Your task to perform on an android device: Open Wikipedia Image 0: 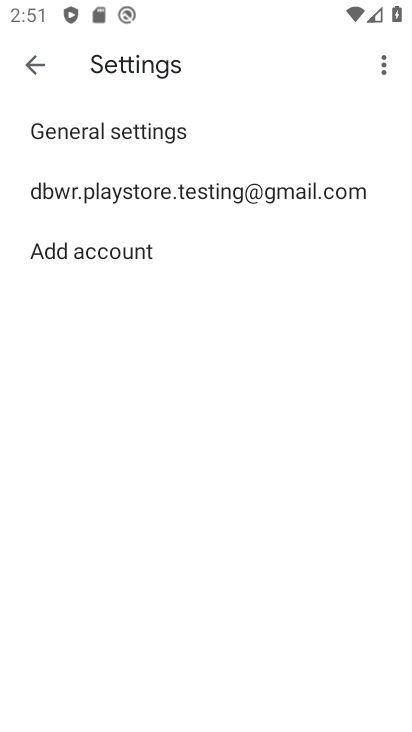
Step 0: press home button
Your task to perform on an android device: Open Wikipedia Image 1: 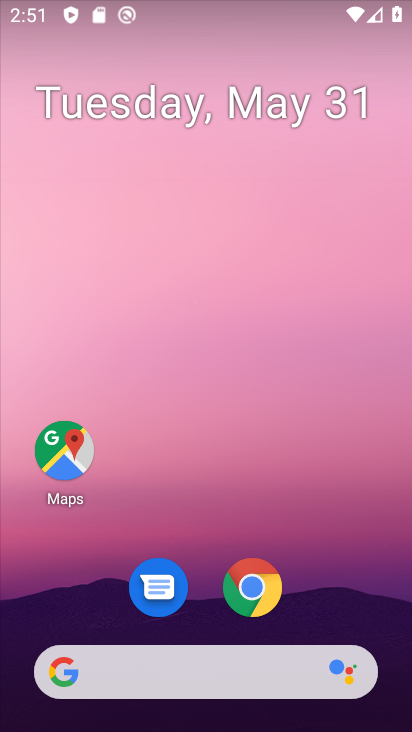
Step 1: click (261, 589)
Your task to perform on an android device: Open Wikipedia Image 2: 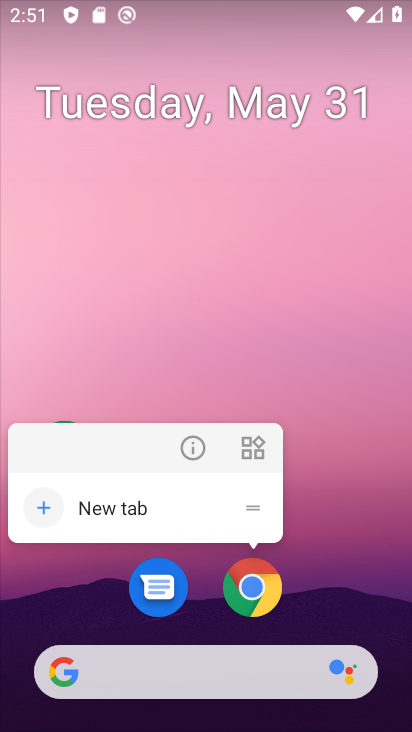
Step 2: click (251, 582)
Your task to perform on an android device: Open Wikipedia Image 3: 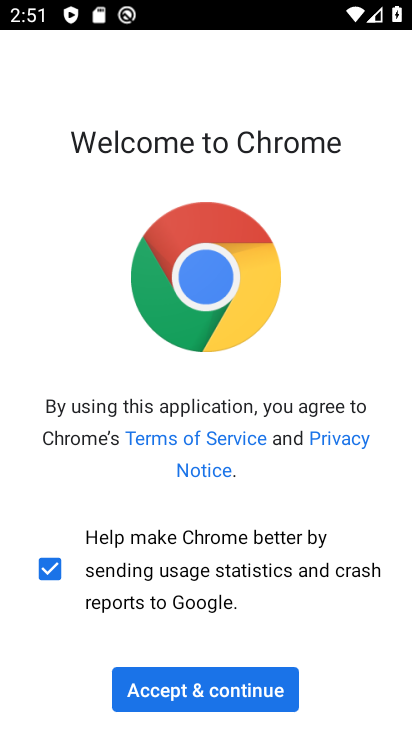
Step 3: click (177, 688)
Your task to perform on an android device: Open Wikipedia Image 4: 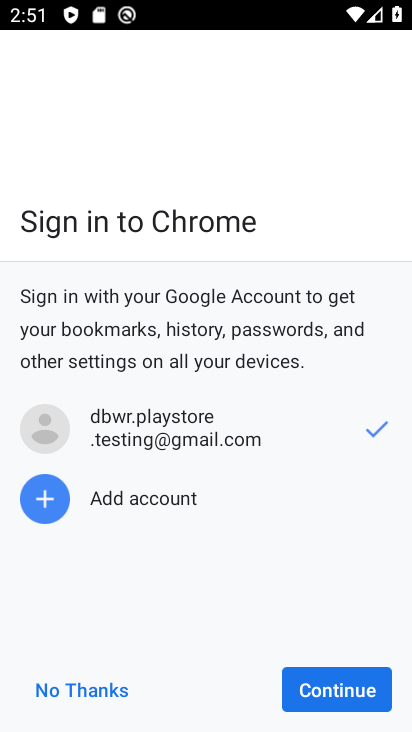
Step 4: click (327, 681)
Your task to perform on an android device: Open Wikipedia Image 5: 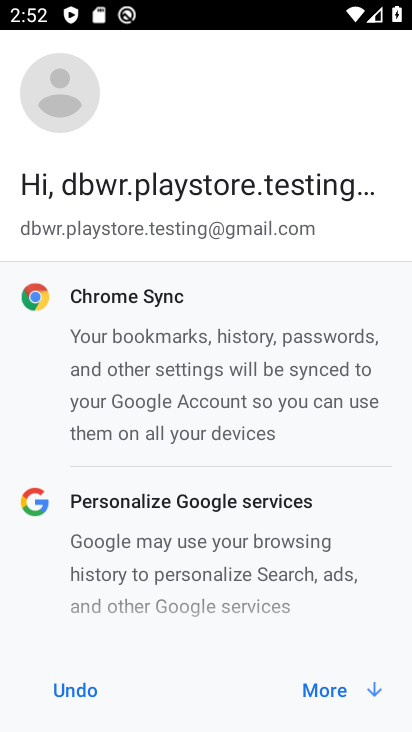
Step 5: click (306, 707)
Your task to perform on an android device: Open Wikipedia Image 6: 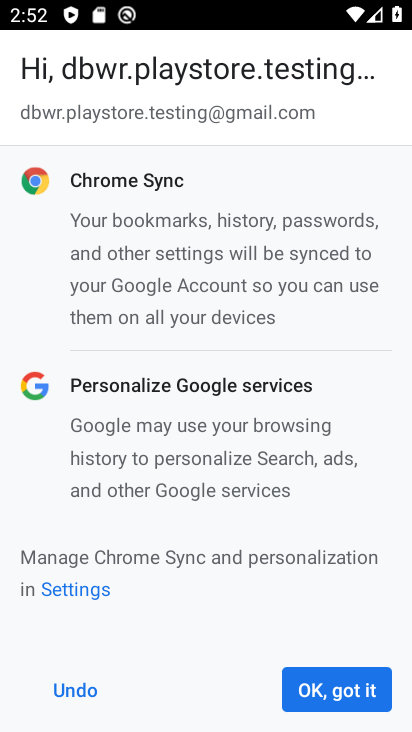
Step 6: click (331, 693)
Your task to perform on an android device: Open Wikipedia Image 7: 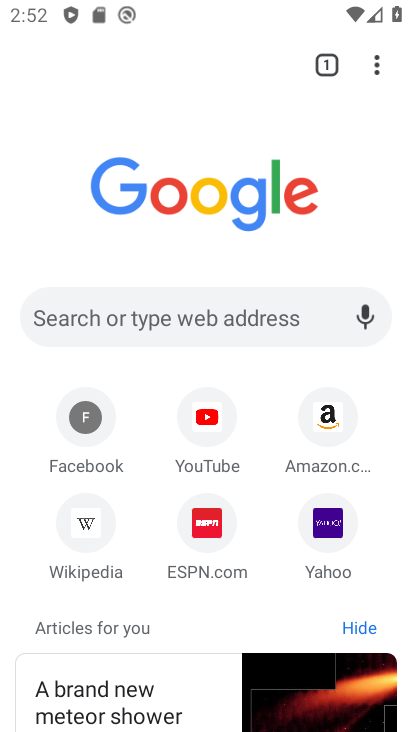
Step 7: click (88, 527)
Your task to perform on an android device: Open Wikipedia Image 8: 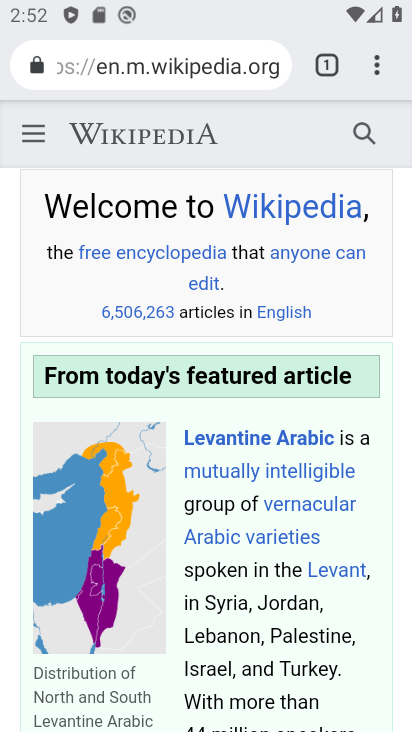
Step 8: task complete